Your task to perform on an android device: Open my contact list Image 0: 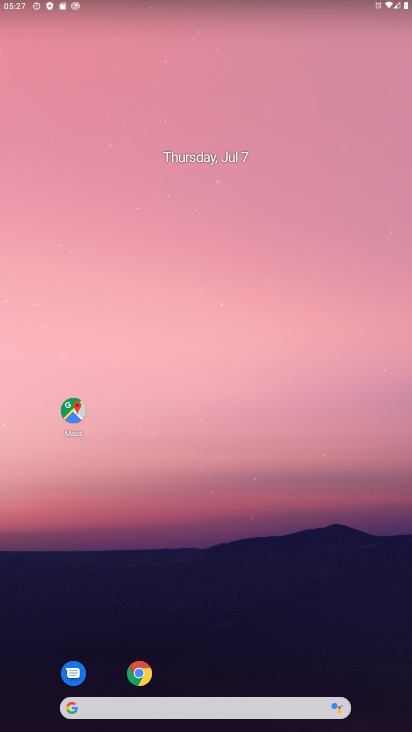
Step 0: drag from (286, 703) to (280, 99)
Your task to perform on an android device: Open my contact list Image 1: 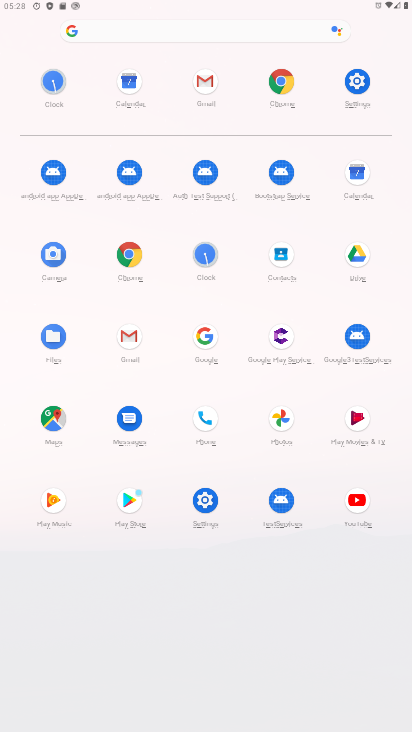
Step 1: click (283, 248)
Your task to perform on an android device: Open my contact list Image 2: 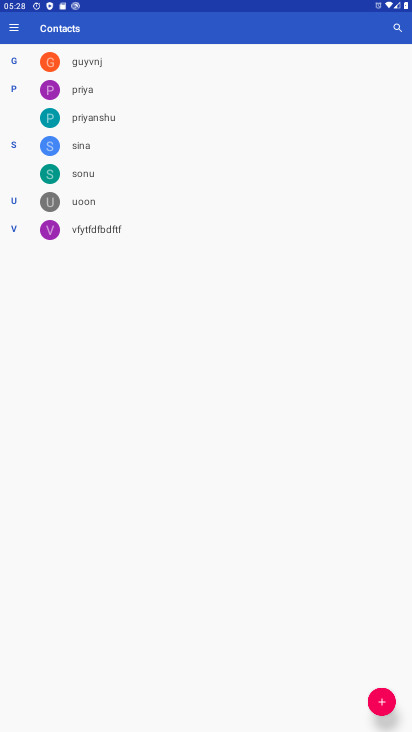
Step 2: task complete